Your task to perform on an android device: Search for usb-a on amazon, select the first entry, and add it to the cart. Image 0: 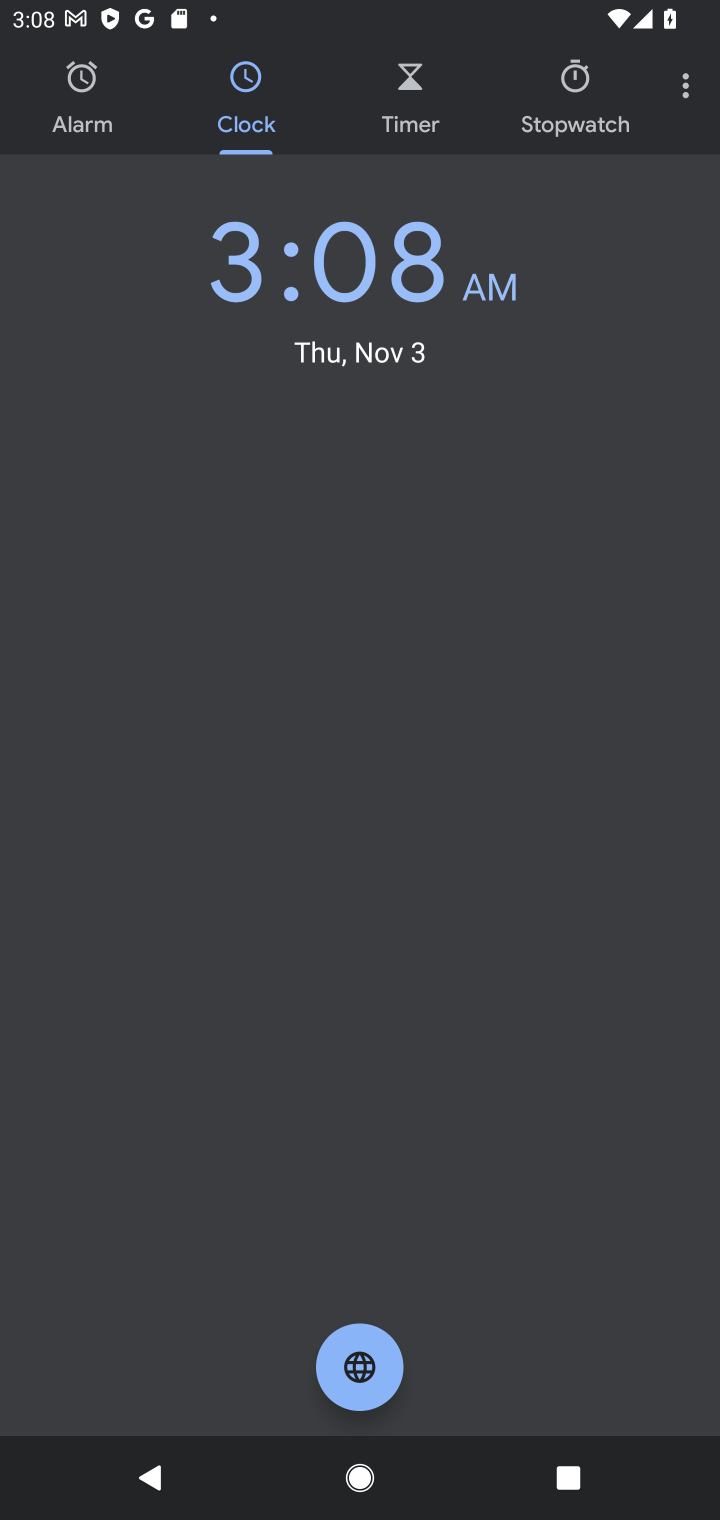
Step 0: press home button
Your task to perform on an android device: Search for usb-a on amazon, select the first entry, and add it to the cart. Image 1: 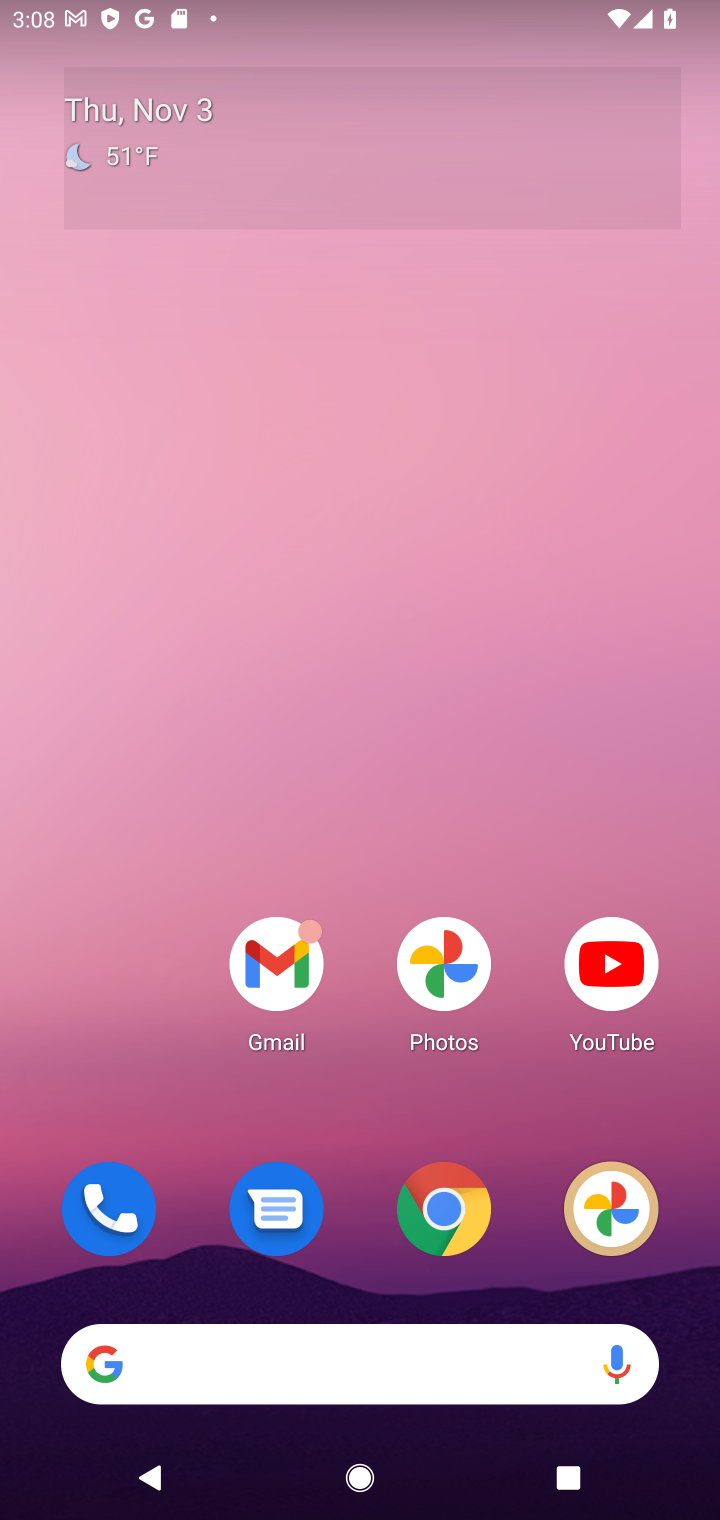
Step 1: click (451, 1223)
Your task to perform on an android device: Search for usb-a on amazon, select the first entry, and add it to the cart. Image 2: 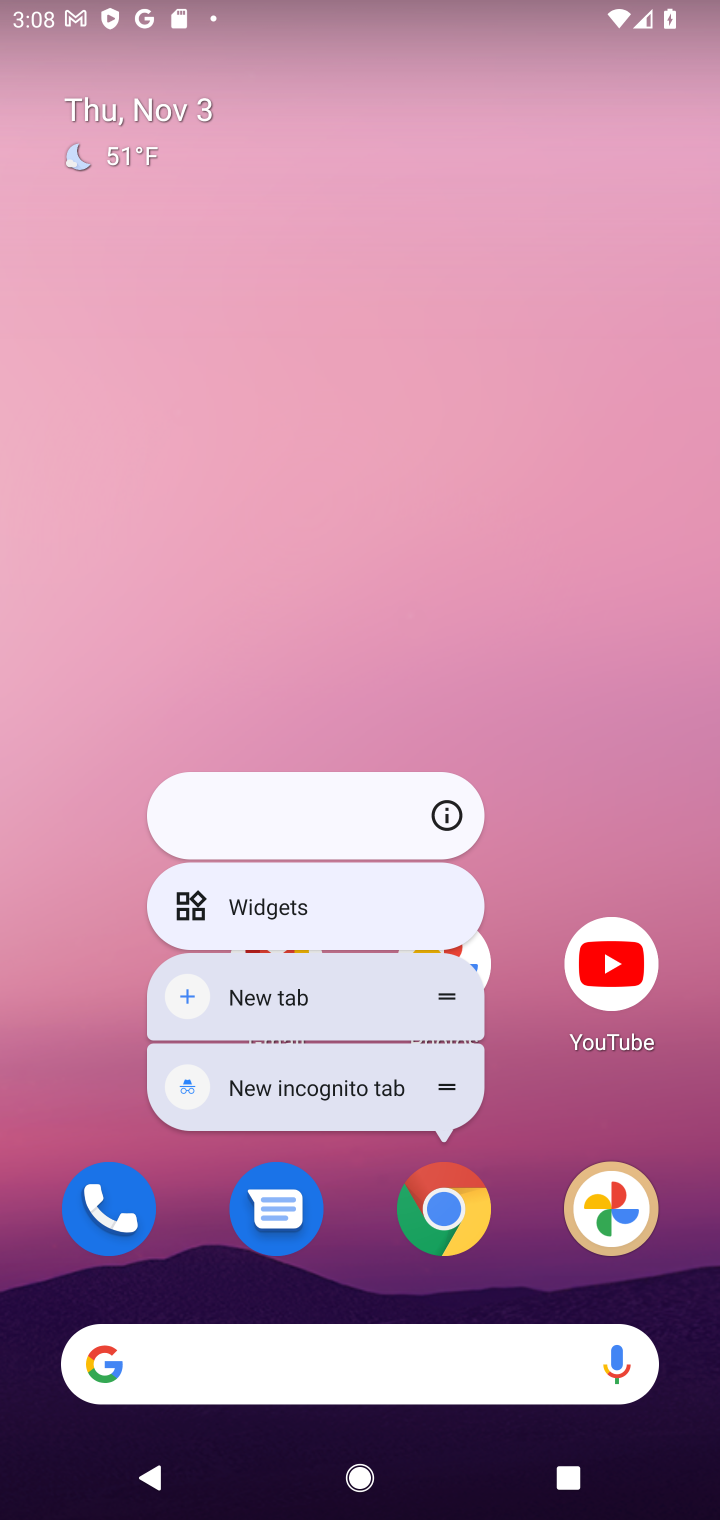
Step 2: click (451, 1223)
Your task to perform on an android device: Search for usb-a on amazon, select the first entry, and add it to the cart. Image 3: 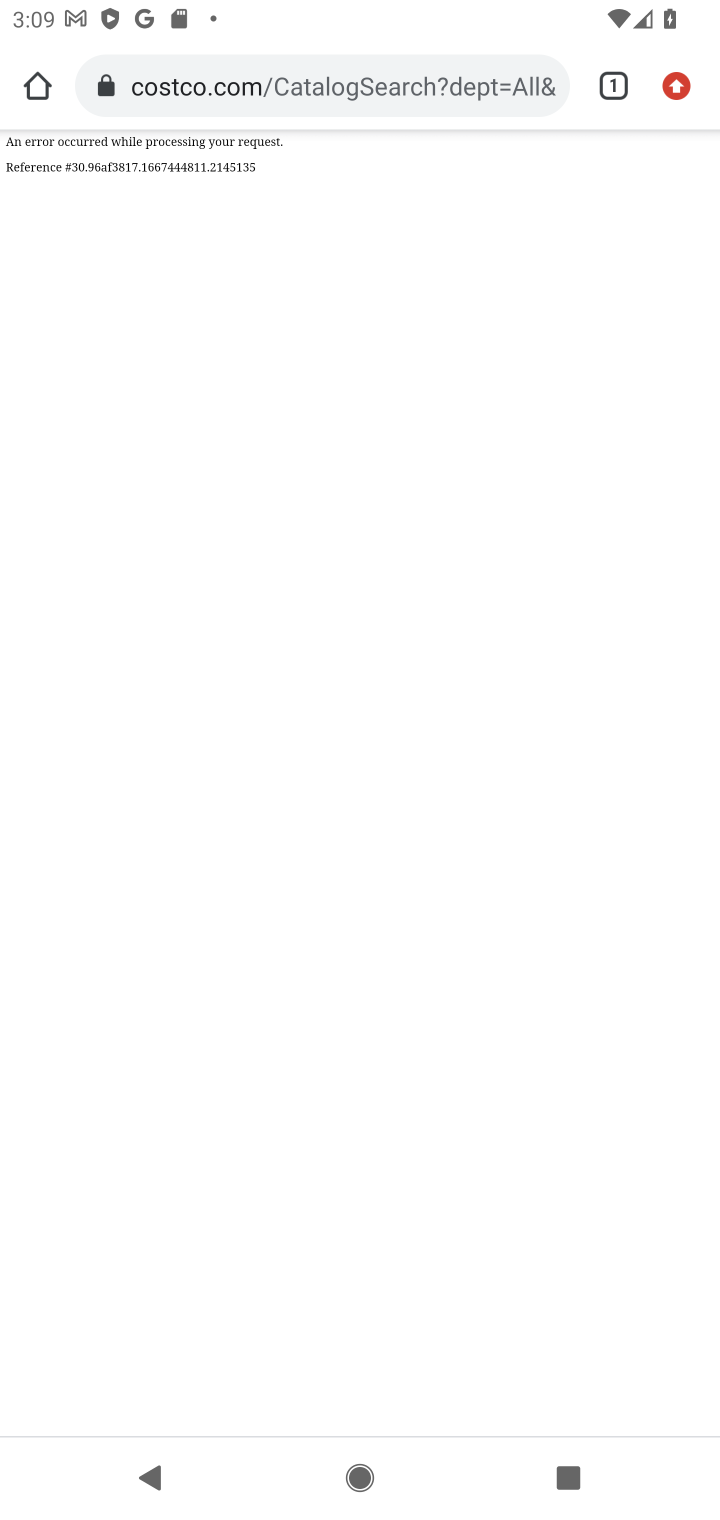
Step 3: click (306, 96)
Your task to perform on an android device: Search for usb-a on amazon, select the first entry, and add it to the cart. Image 4: 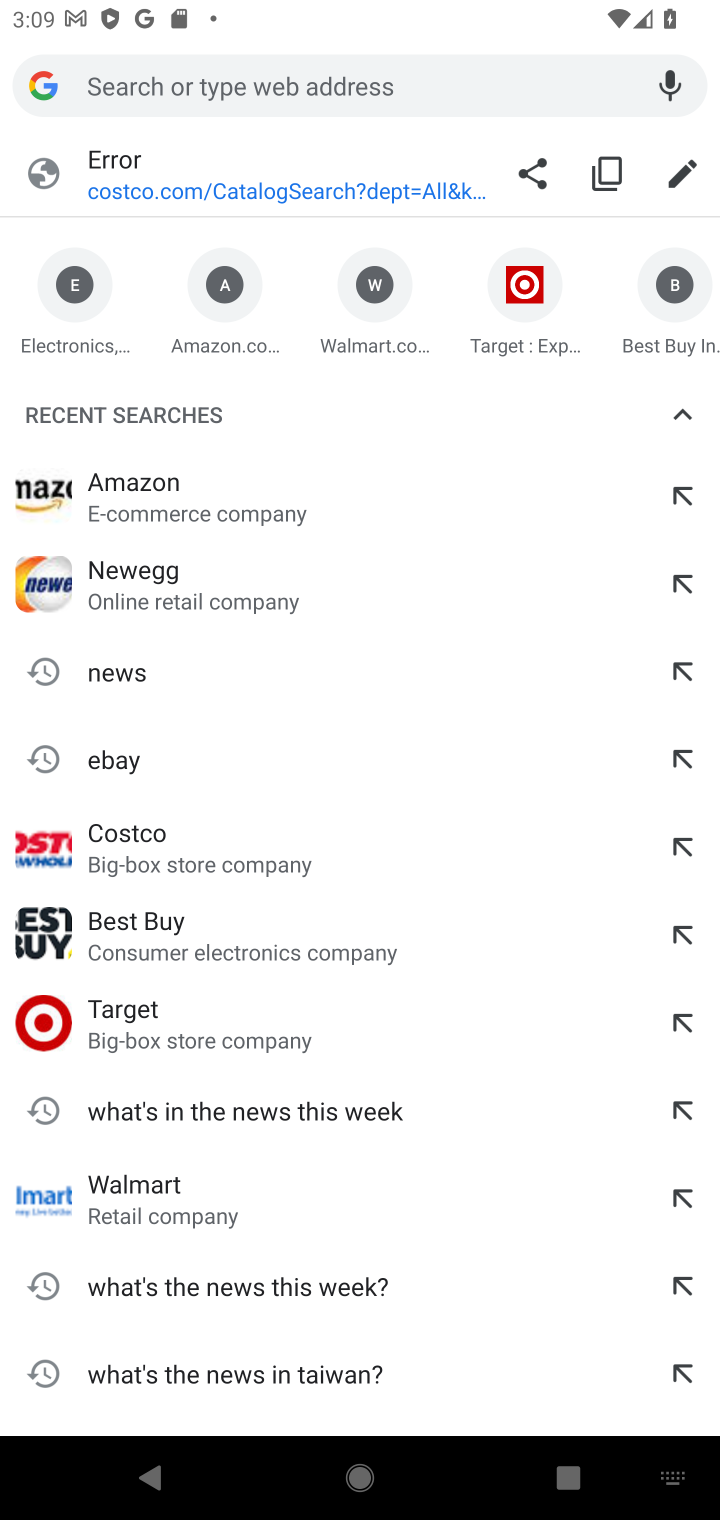
Step 4: type "amazon"
Your task to perform on an android device: Search for usb-a on amazon, select the first entry, and add it to the cart. Image 5: 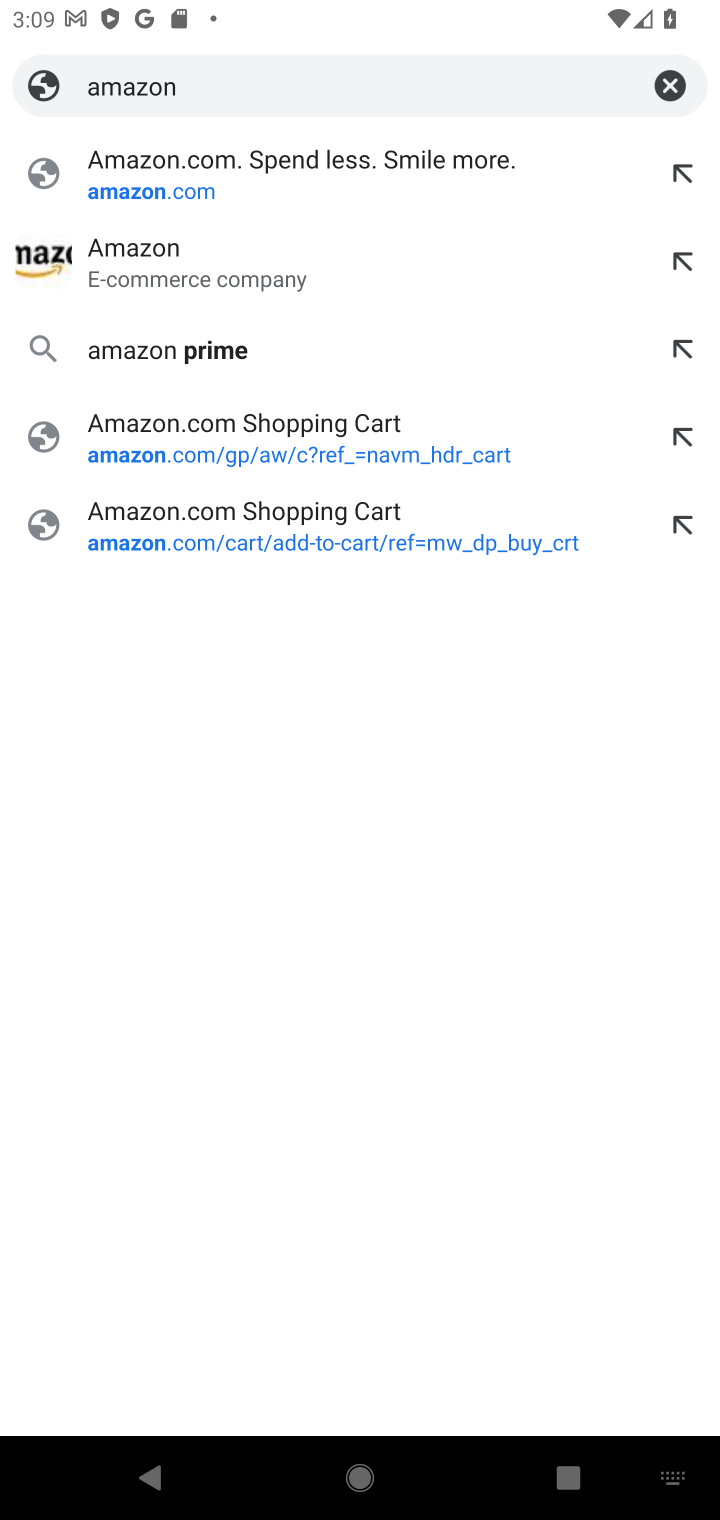
Step 5: click (306, 179)
Your task to perform on an android device: Search for usb-a on amazon, select the first entry, and add it to the cart. Image 6: 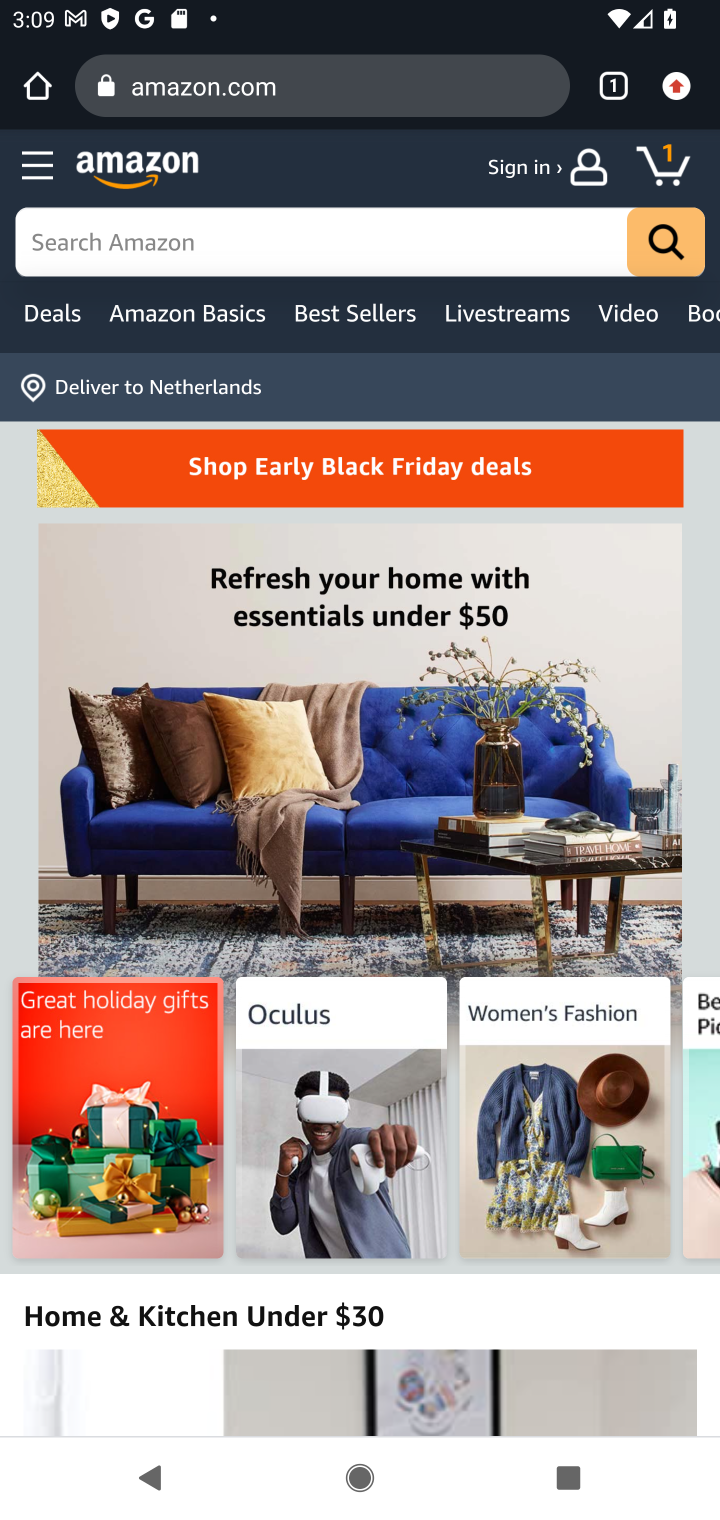
Step 6: click (322, 242)
Your task to perform on an android device: Search for usb-a on amazon, select the first entry, and add it to the cart. Image 7: 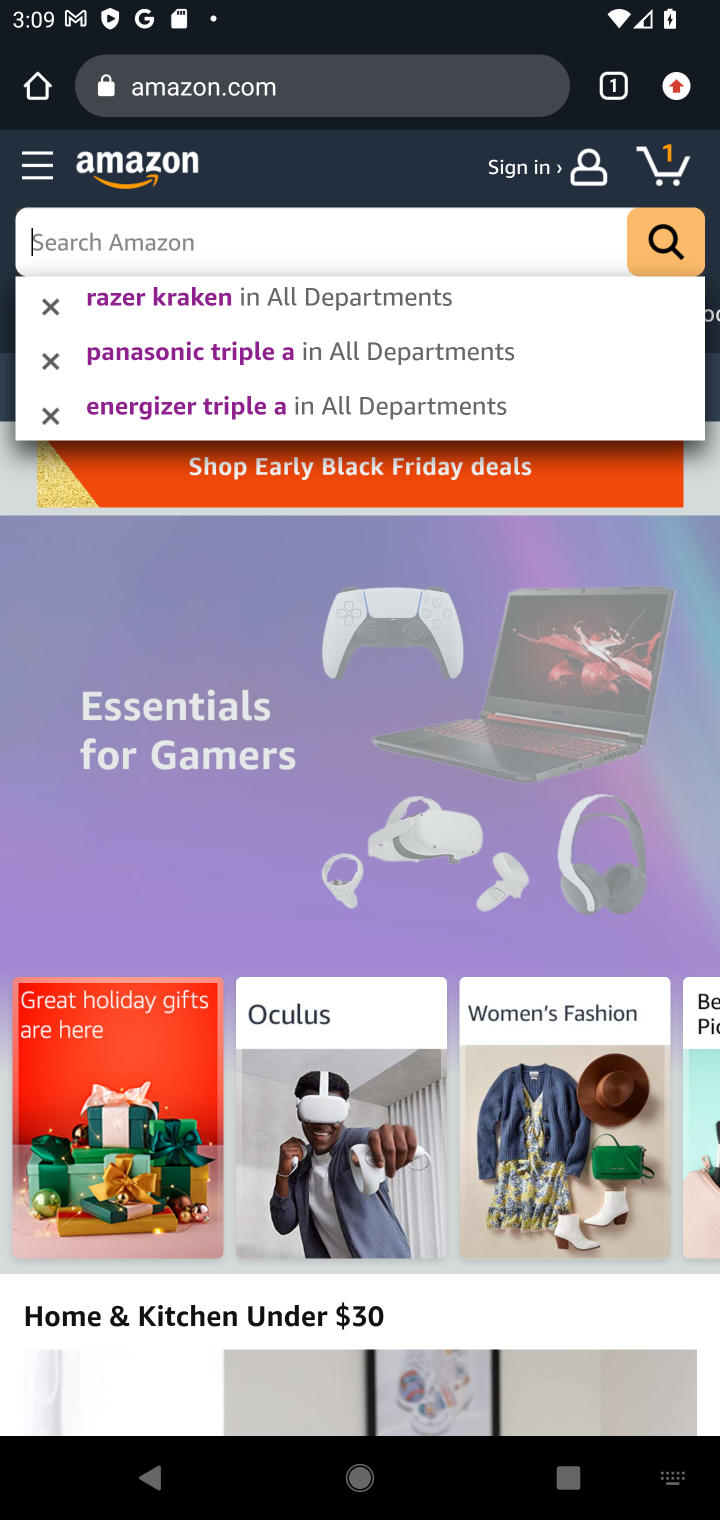
Step 7: type "usb-a"
Your task to perform on an android device: Search for usb-a on amazon, select the first entry, and add it to the cart. Image 8: 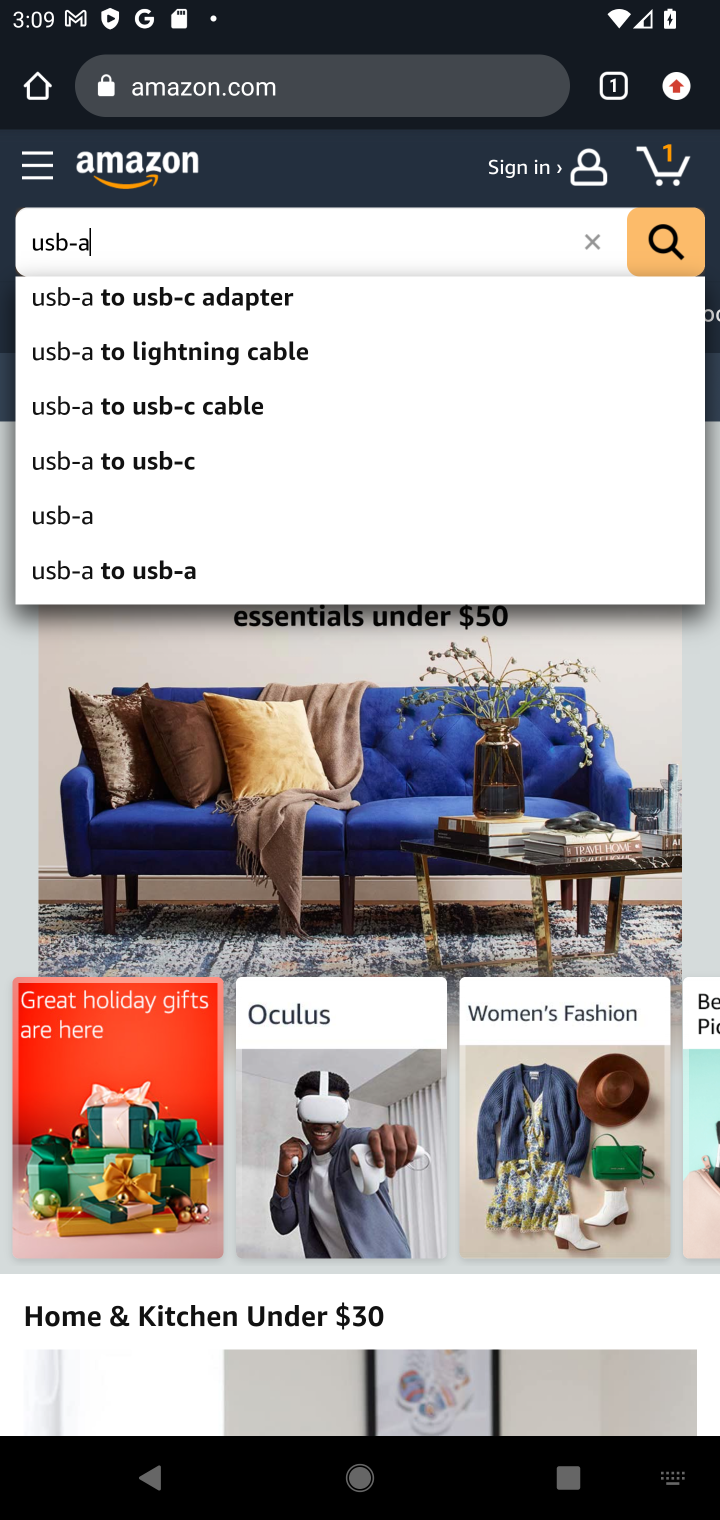
Step 8: press enter
Your task to perform on an android device: Search for usb-a on amazon, select the first entry, and add it to the cart. Image 9: 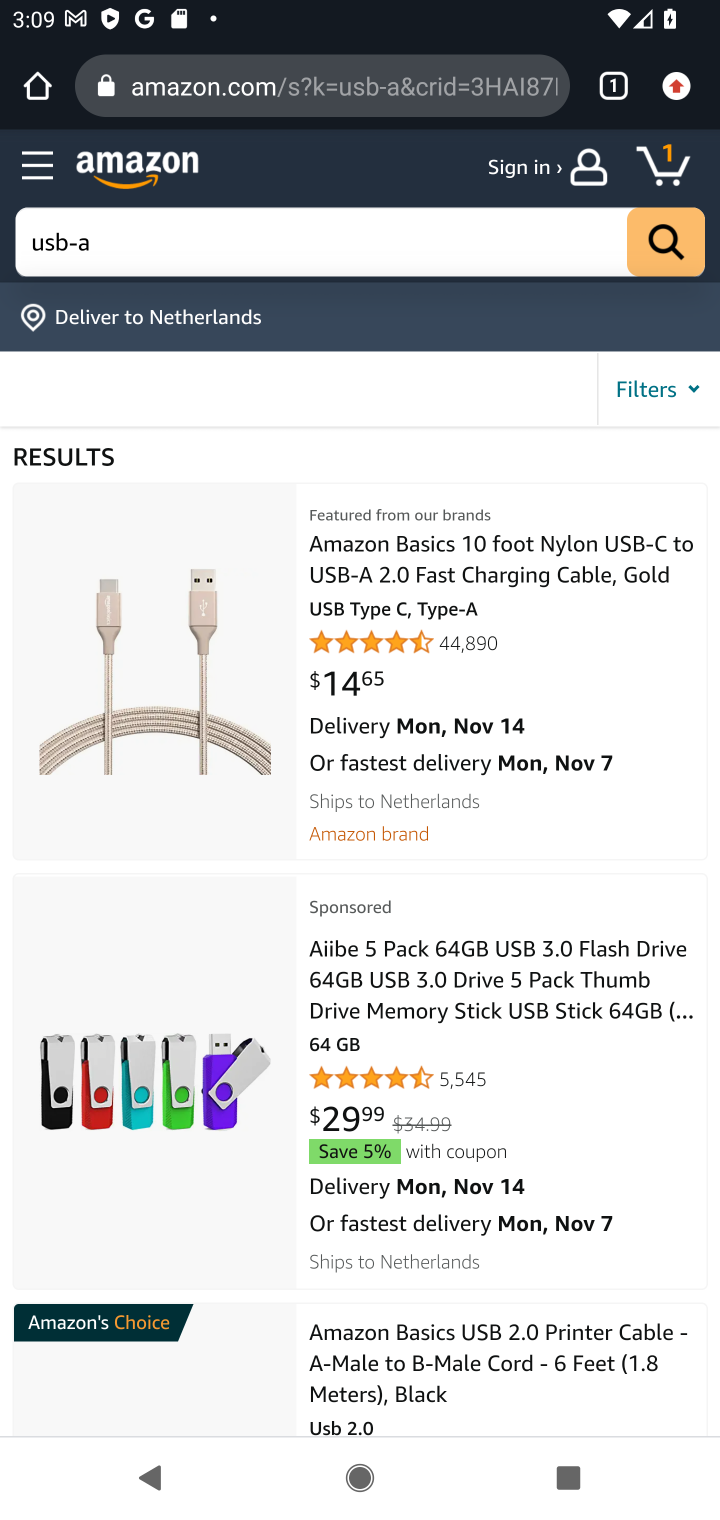
Step 9: click (188, 709)
Your task to perform on an android device: Search for usb-a on amazon, select the first entry, and add it to the cart. Image 10: 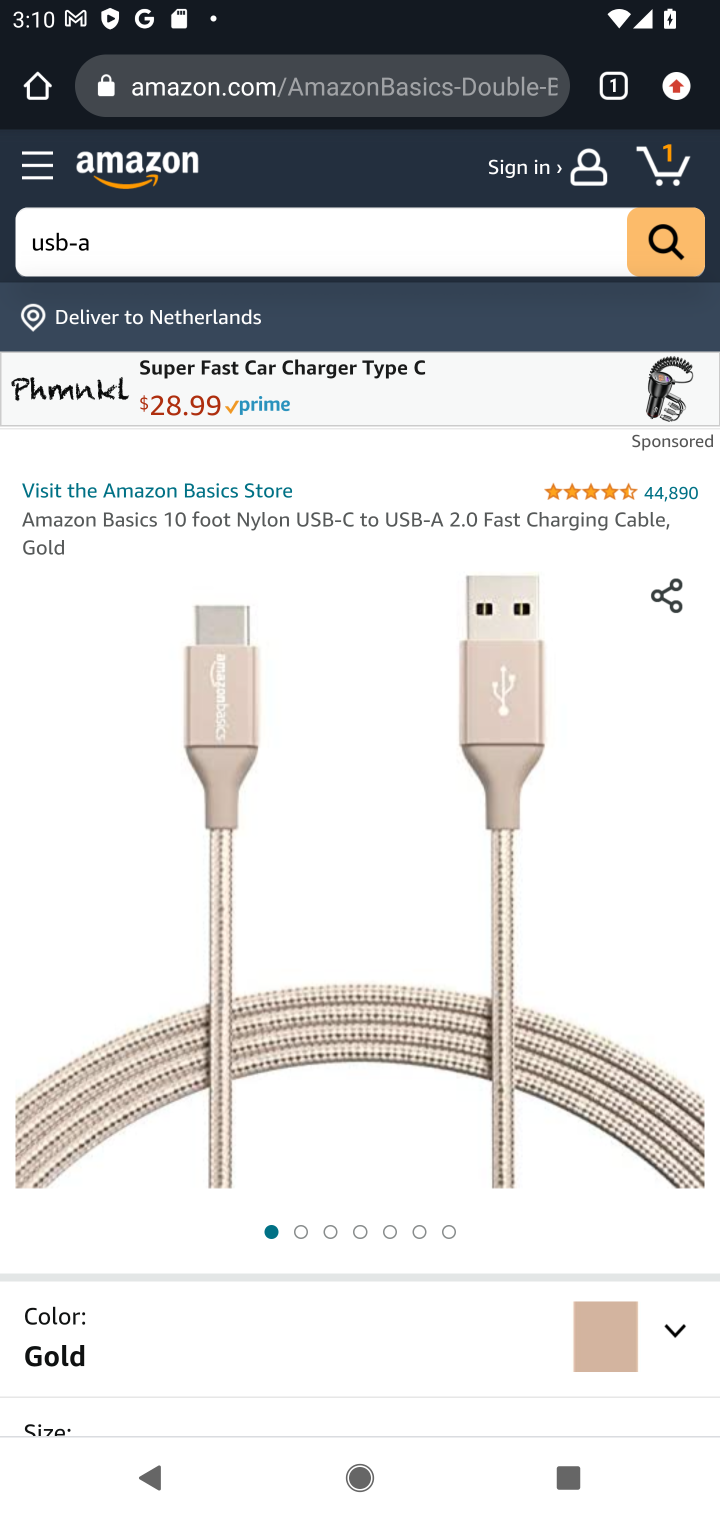
Step 10: drag from (596, 1243) to (530, 384)
Your task to perform on an android device: Search for usb-a on amazon, select the first entry, and add it to the cart. Image 11: 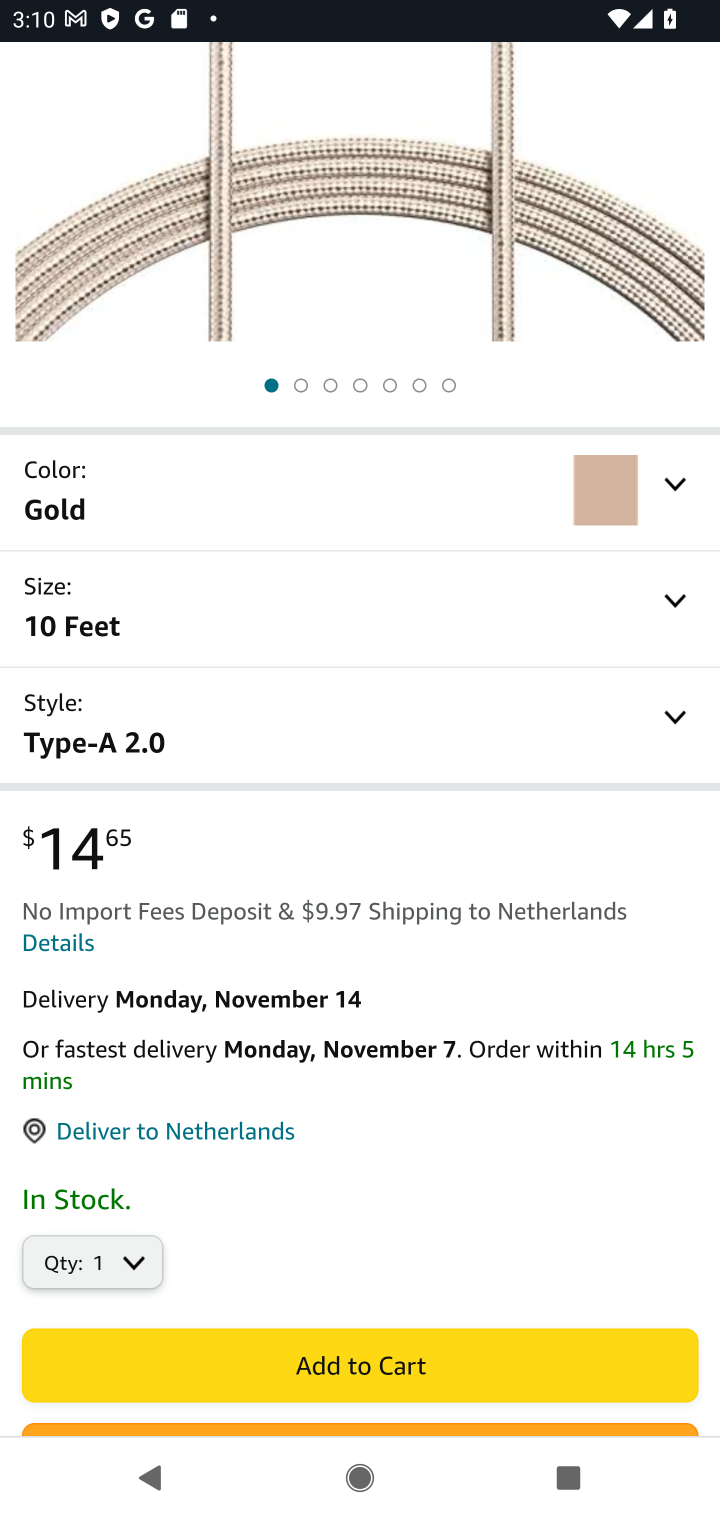
Step 11: drag from (489, 1279) to (282, 438)
Your task to perform on an android device: Search for usb-a on amazon, select the first entry, and add it to the cart. Image 12: 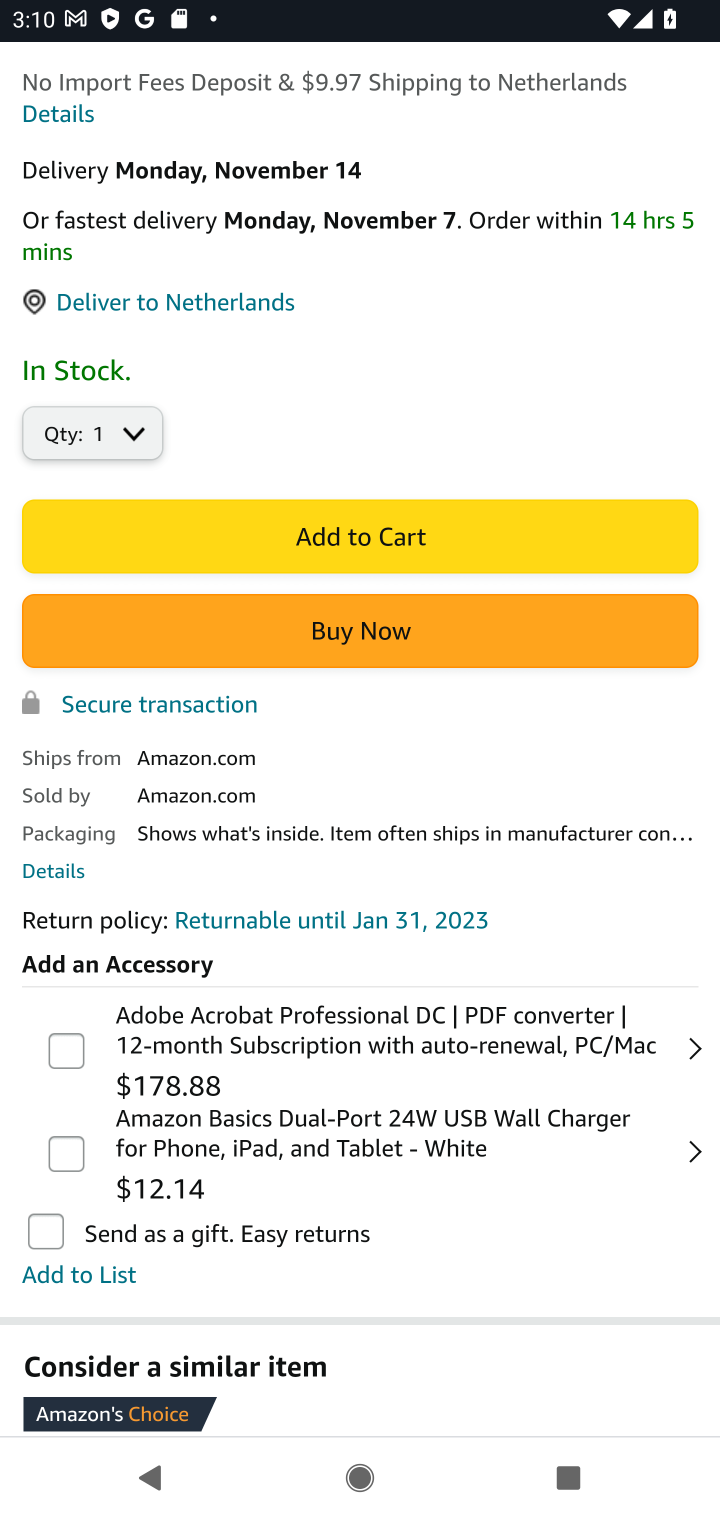
Step 12: click (456, 555)
Your task to perform on an android device: Search for usb-a on amazon, select the first entry, and add it to the cart. Image 13: 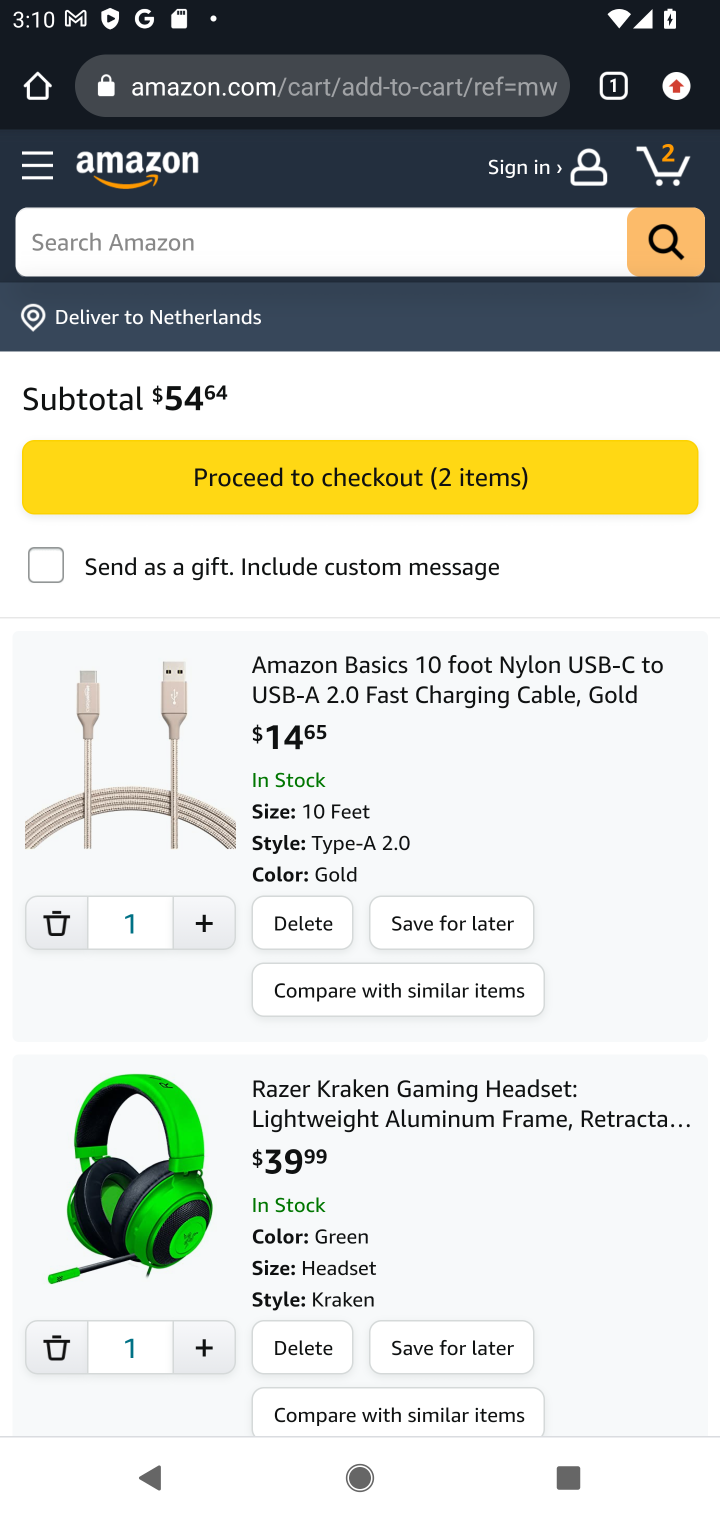
Step 13: task complete